Your task to perform on an android device: Open the stopwatch Image 0: 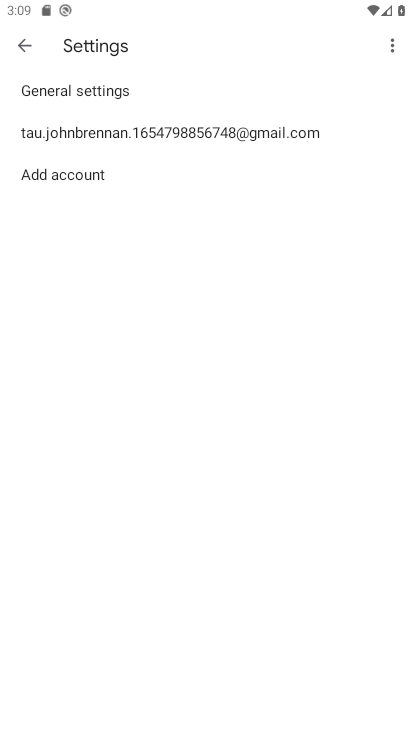
Step 0: press home button
Your task to perform on an android device: Open the stopwatch Image 1: 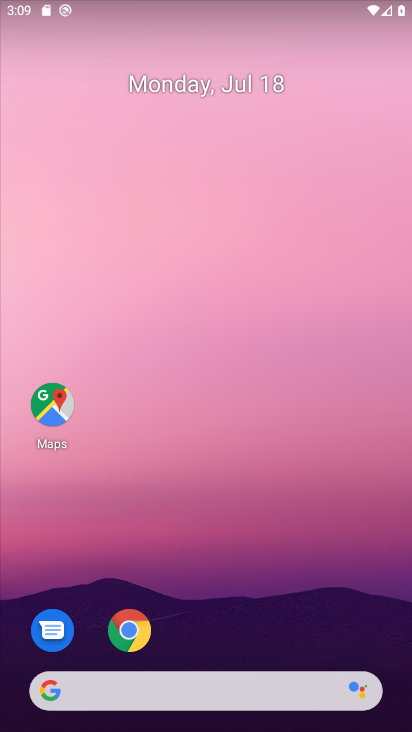
Step 1: drag from (348, 609) to (230, 2)
Your task to perform on an android device: Open the stopwatch Image 2: 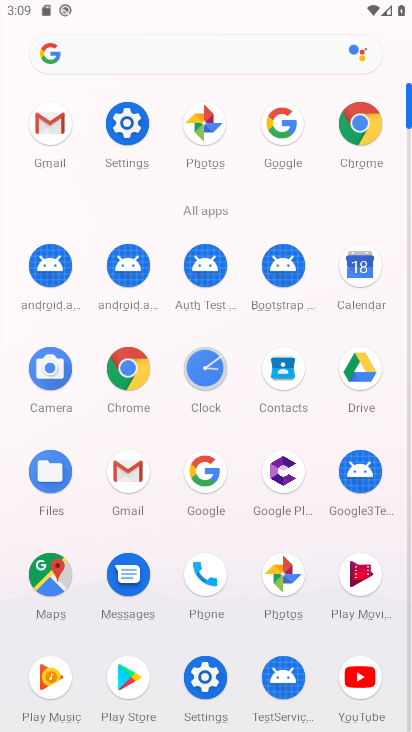
Step 2: click (211, 365)
Your task to perform on an android device: Open the stopwatch Image 3: 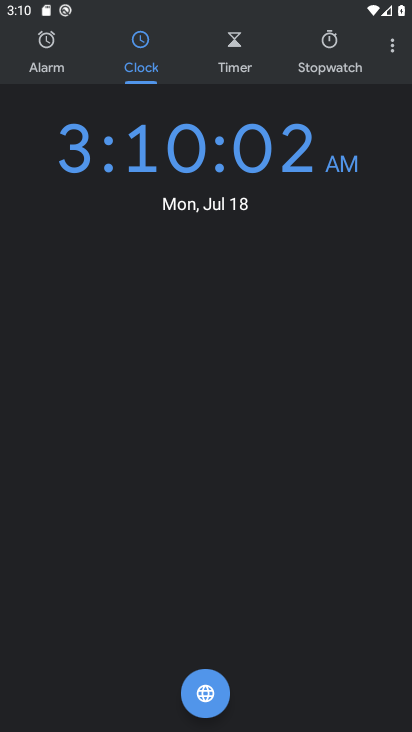
Step 3: click (332, 71)
Your task to perform on an android device: Open the stopwatch Image 4: 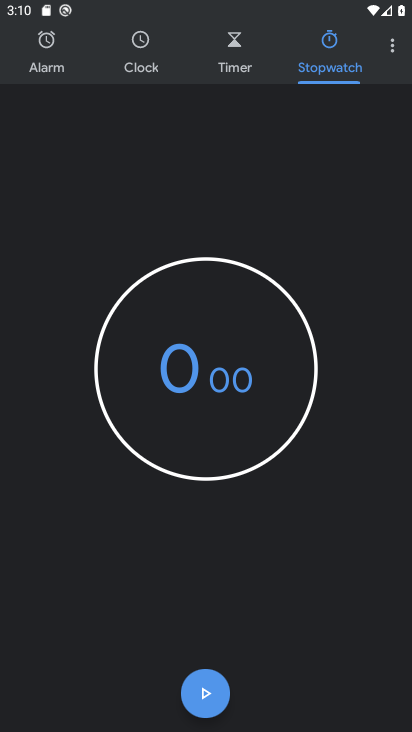
Step 4: task complete